Your task to perform on an android device: Go to sound settings Image 0: 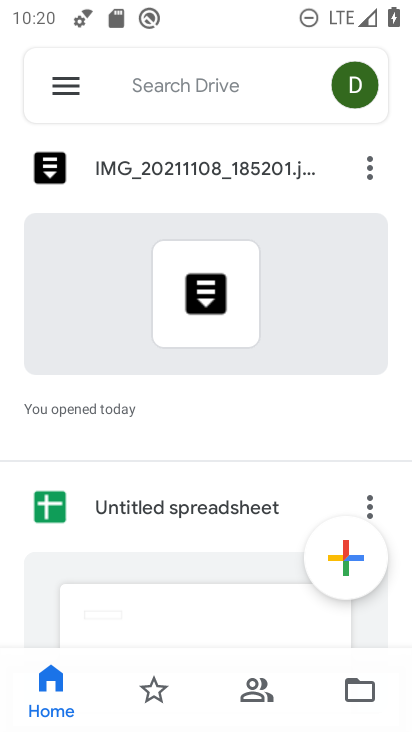
Step 0: press home button
Your task to perform on an android device: Go to sound settings Image 1: 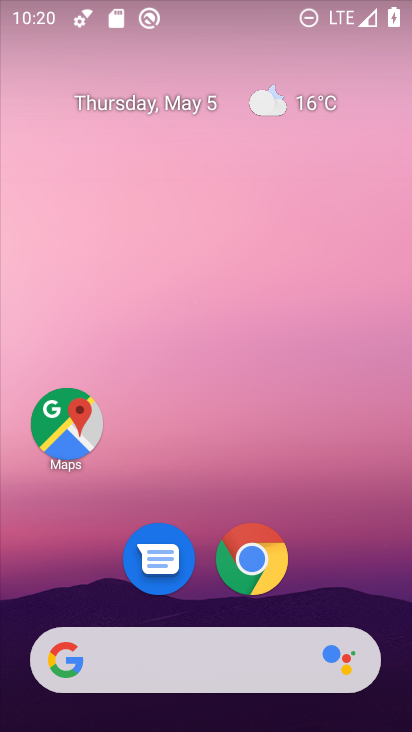
Step 1: drag from (393, 633) to (314, 84)
Your task to perform on an android device: Go to sound settings Image 2: 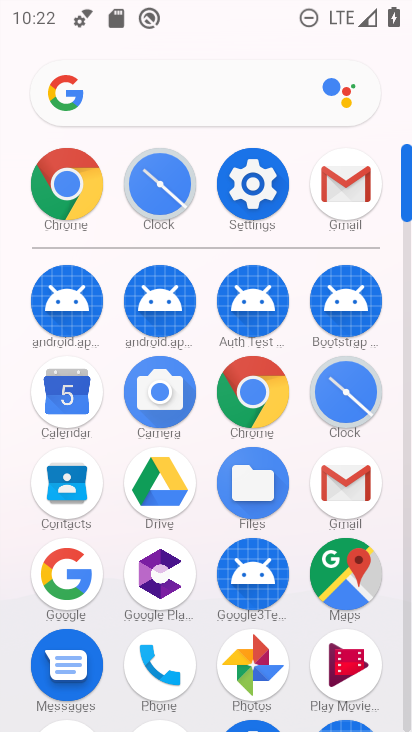
Step 2: click (280, 187)
Your task to perform on an android device: Go to sound settings Image 3: 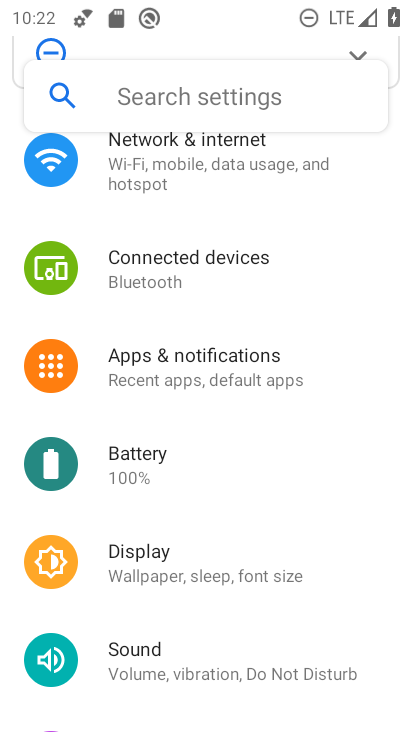
Step 3: click (207, 642)
Your task to perform on an android device: Go to sound settings Image 4: 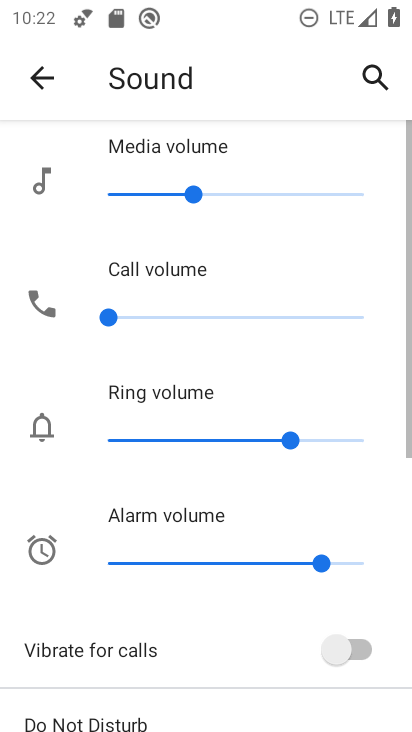
Step 4: task complete